Your task to perform on an android device: turn off translation in the chrome app Image 0: 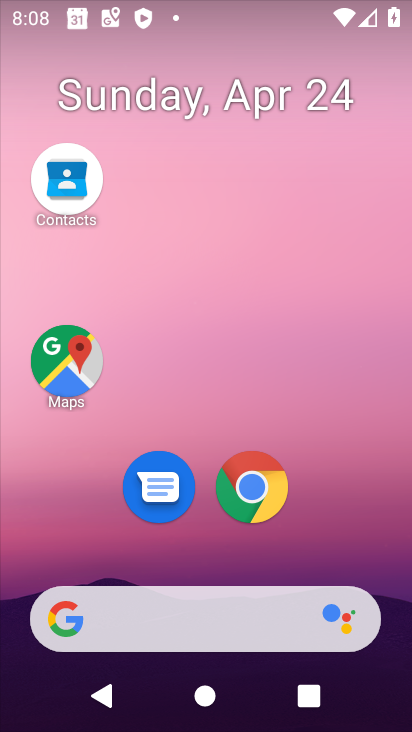
Step 0: click (272, 490)
Your task to perform on an android device: turn off translation in the chrome app Image 1: 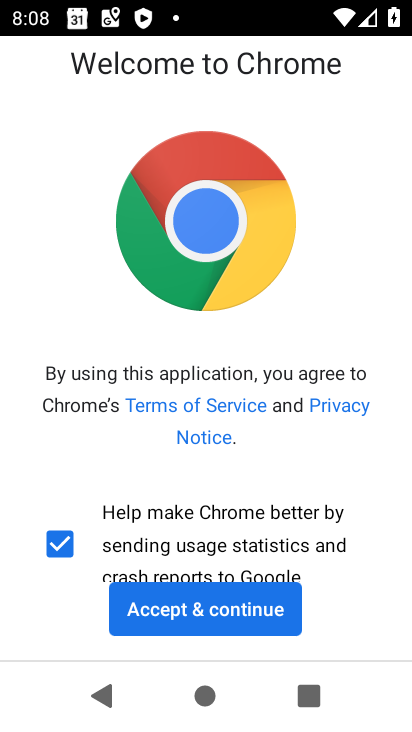
Step 1: click (250, 594)
Your task to perform on an android device: turn off translation in the chrome app Image 2: 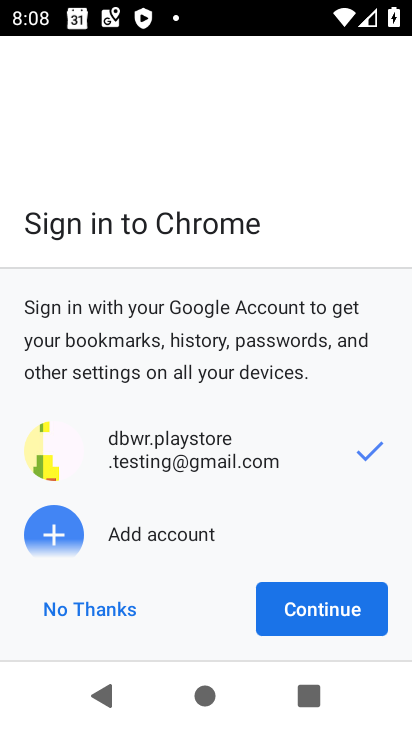
Step 2: click (317, 604)
Your task to perform on an android device: turn off translation in the chrome app Image 3: 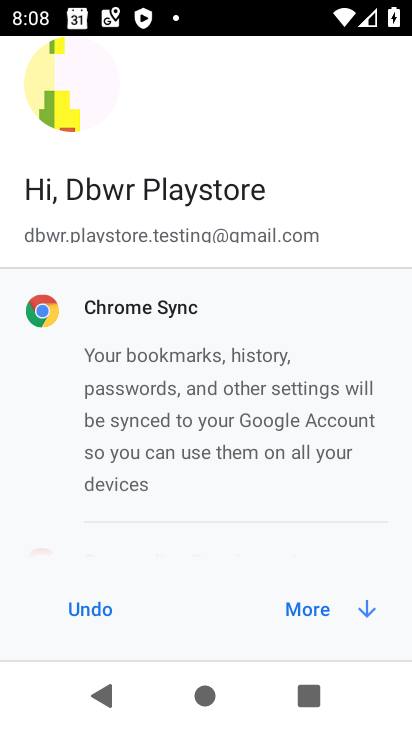
Step 3: click (317, 604)
Your task to perform on an android device: turn off translation in the chrome app Image 4: 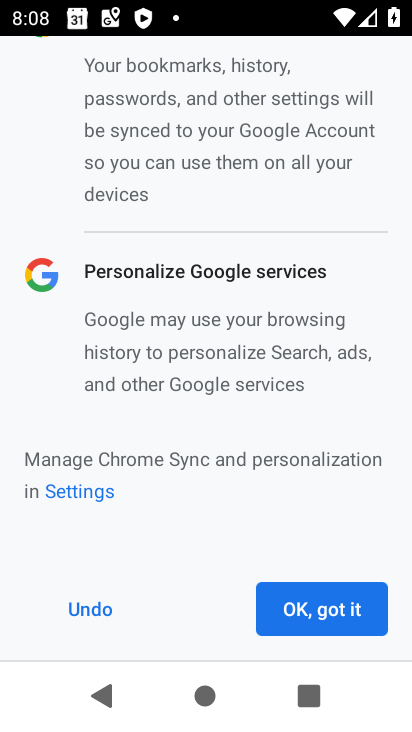
Step 4: click (317, 604)
Your task to perform on an android device: turn off translation in the chrome app Image 5: 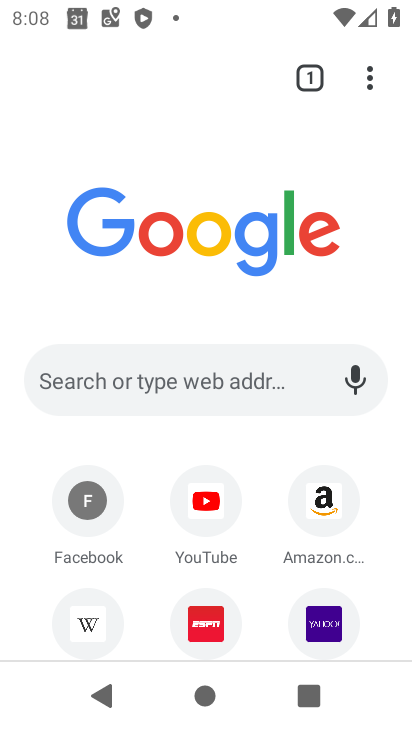
Step 5: click (367, 73)
Your task to perform on an android device: turn off translation in the chrome app Image 6: 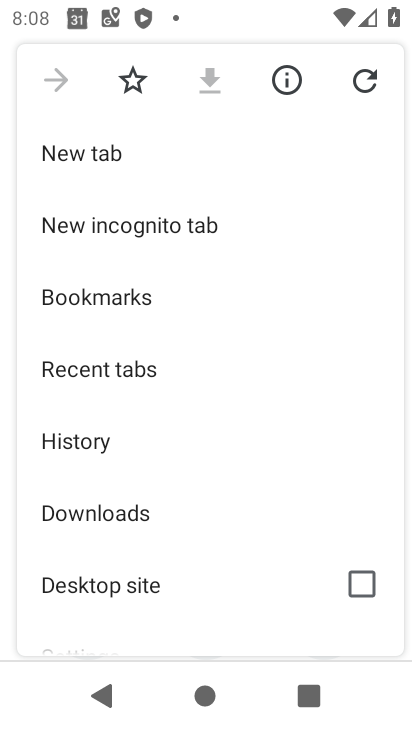
Step 6: drag from (149, 524) to (74, 59)
Your task to perform on an android device: turn off translation in the chrome app Image 7: 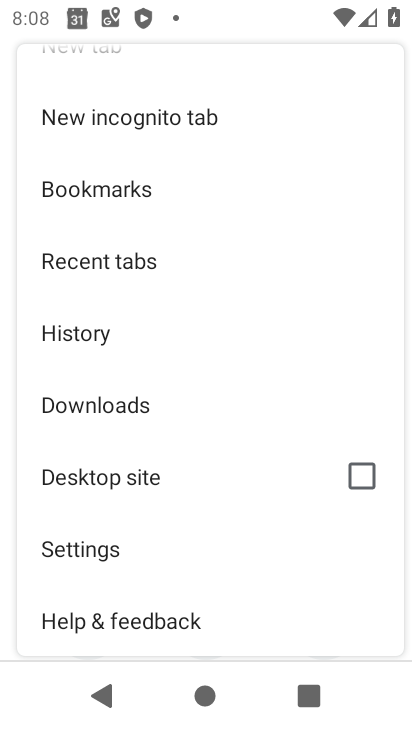
Step 7: click (112, 551)
Your task to perform on an android device: turn off translation in the chrome app Image 8: 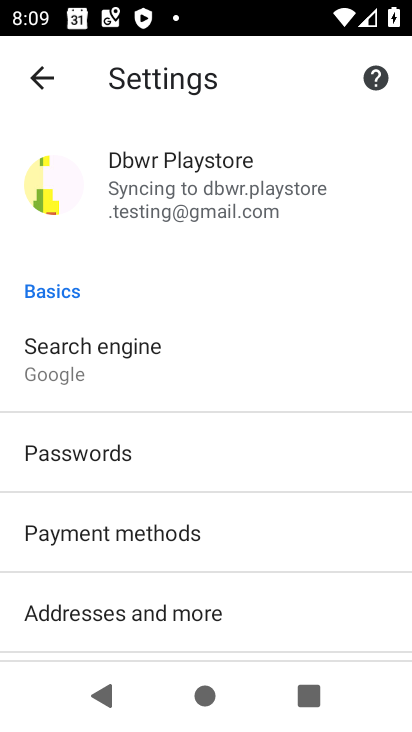
Step 8: drag from (119, 546) to (52, 69)
Your task to perform on an android device: turn off translation in the chrome app Image 9: 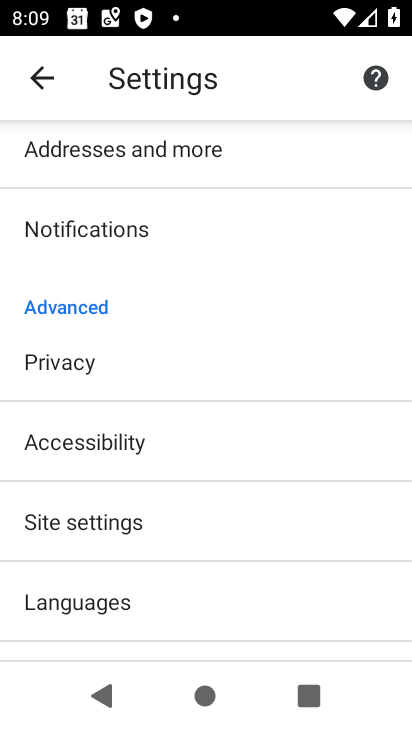
Step 9: click (122, 596)
Your task to perform on an android device: turn off translation in the chrome app Image 10: 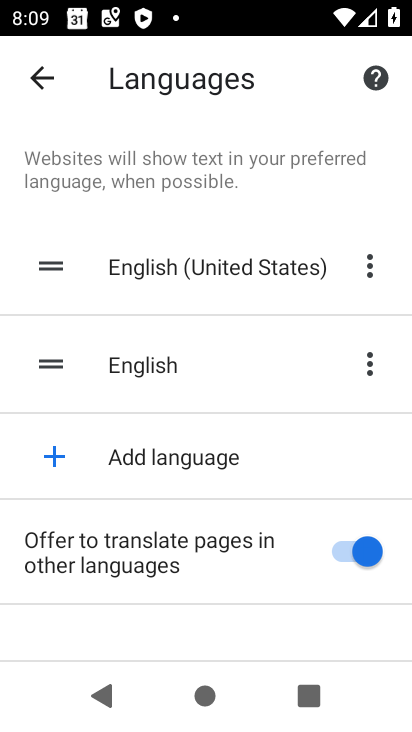
Step 10: click (349, 548)
Your task to perform on an android device: turn off translation in the chrome app Image 11: 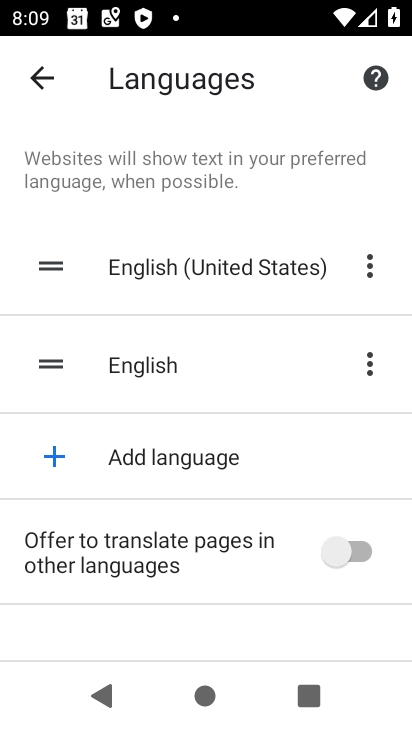
Step 11: task complete